Your task to perform on an android device: turn off improve location accuracy Image 0: 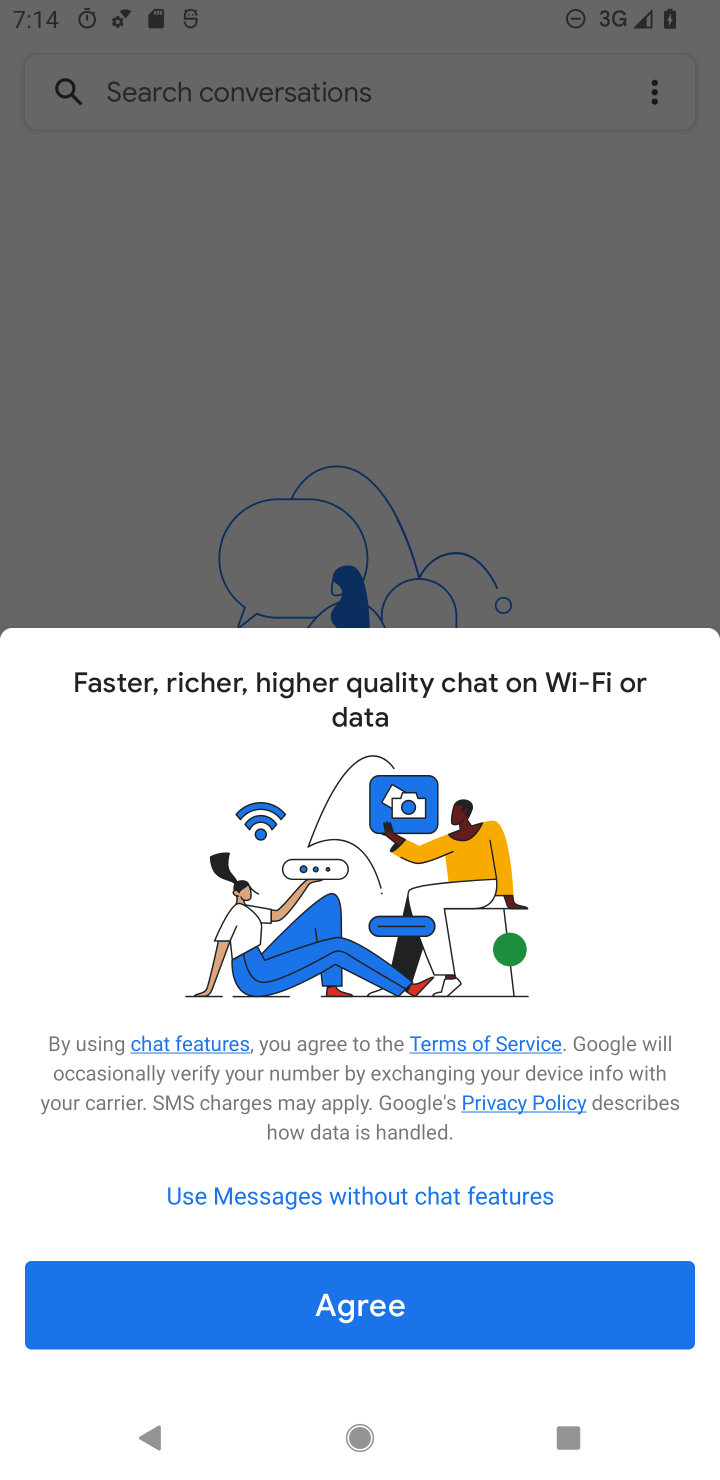
Step 0: drag from (342, 1012) to (419, 351)
Your task to perform on an android device: turn off improve location accuracy Image 1: 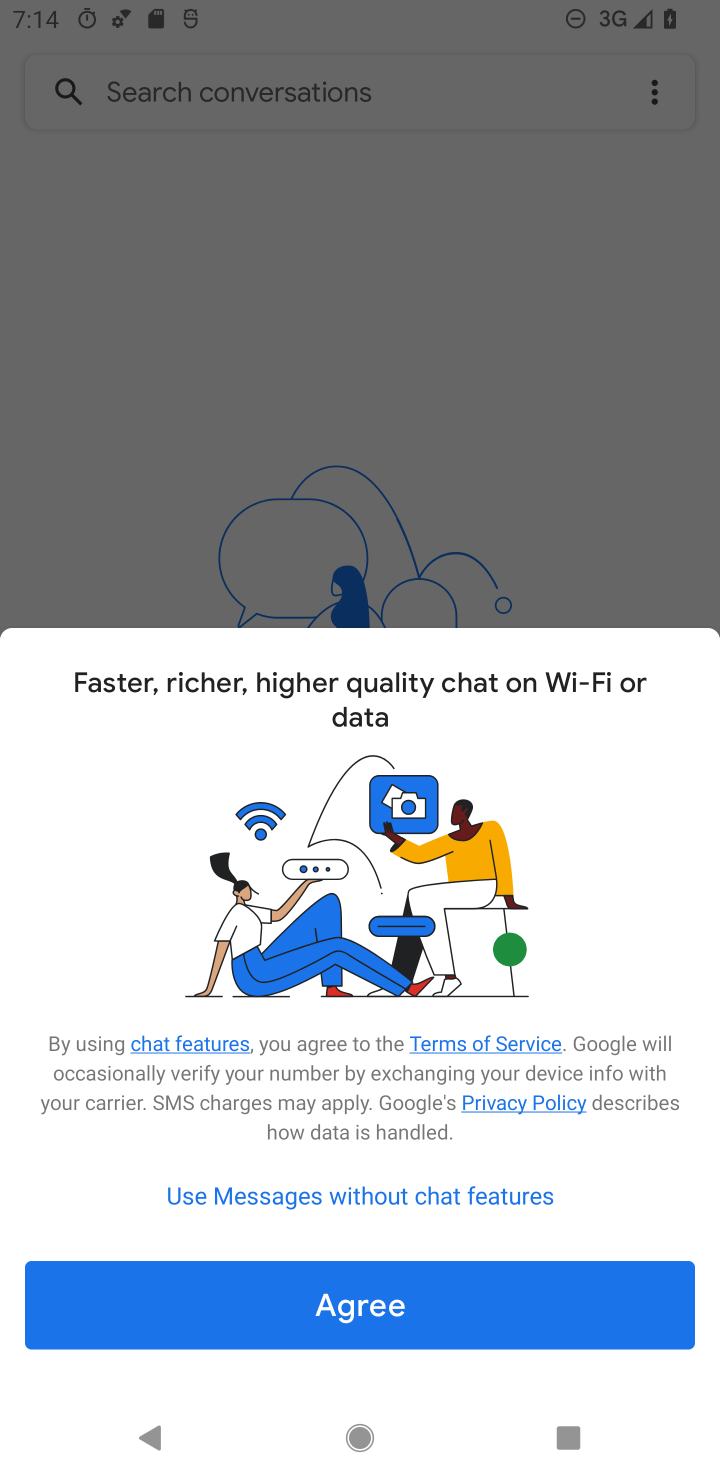
Step 1: drag from (278, 778) to (310, 417)
Your task to perform on an android device: turn off improve location accuracy Image 2: 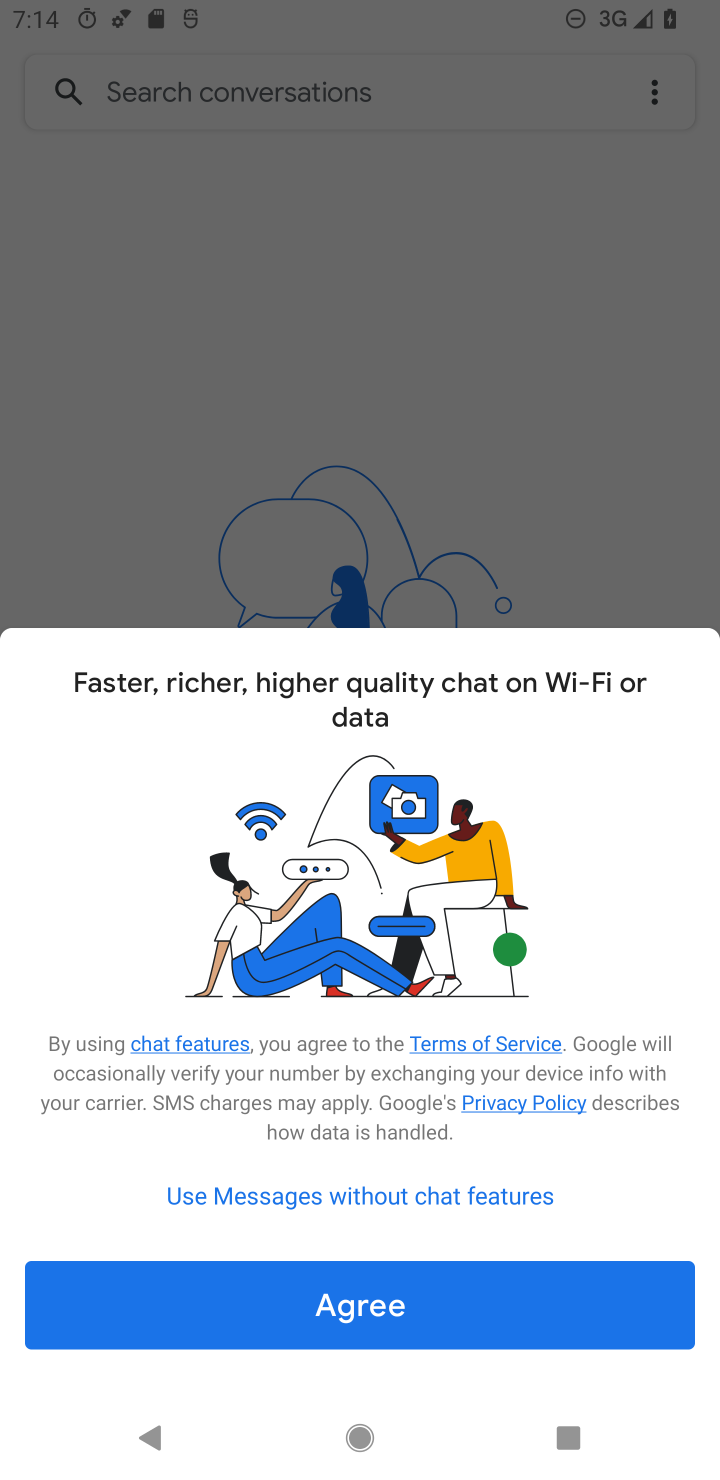
Step 2: press home button
Your task to perform on an android device: turn off improve location accuracy Image 3: 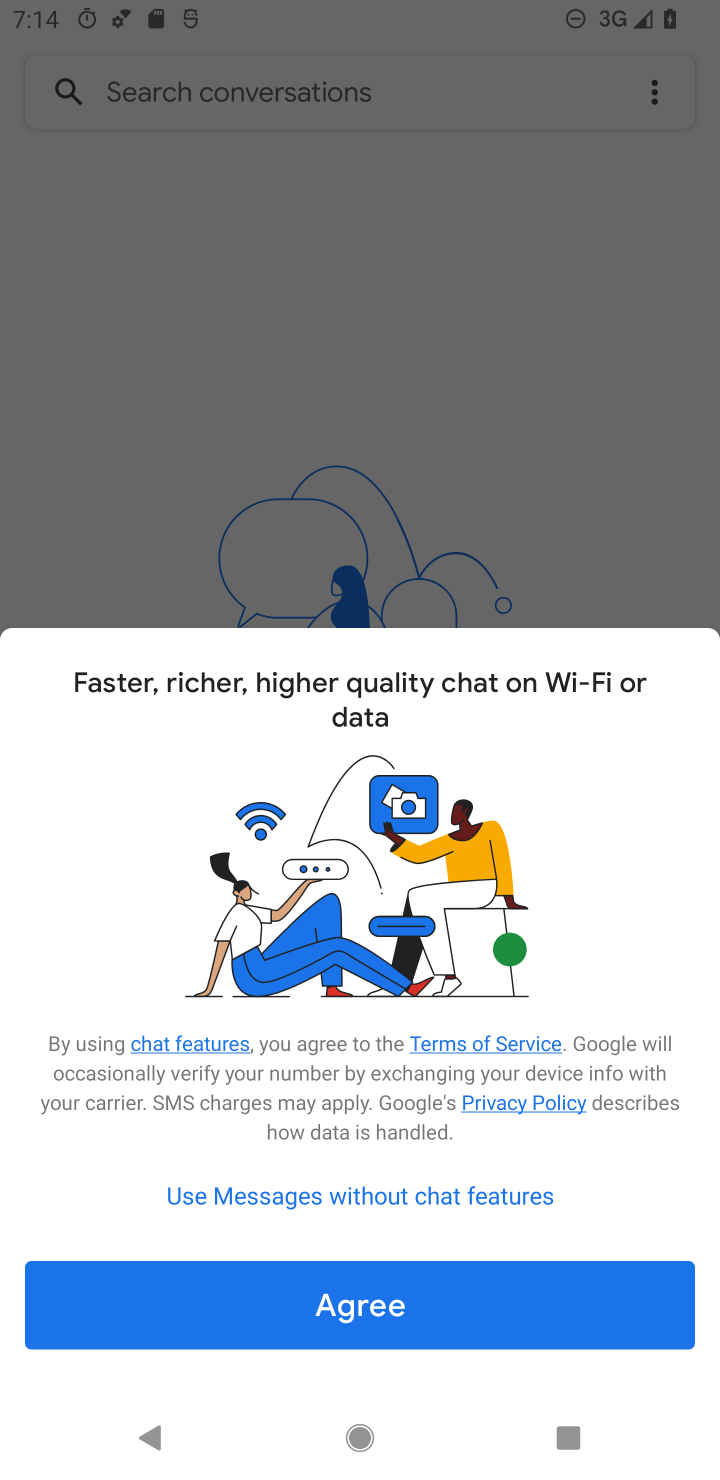
Step 3: drag from (575, 895) to (582, 52)
Your task to perform on an android device: turn off improve location accuracy Image 4: 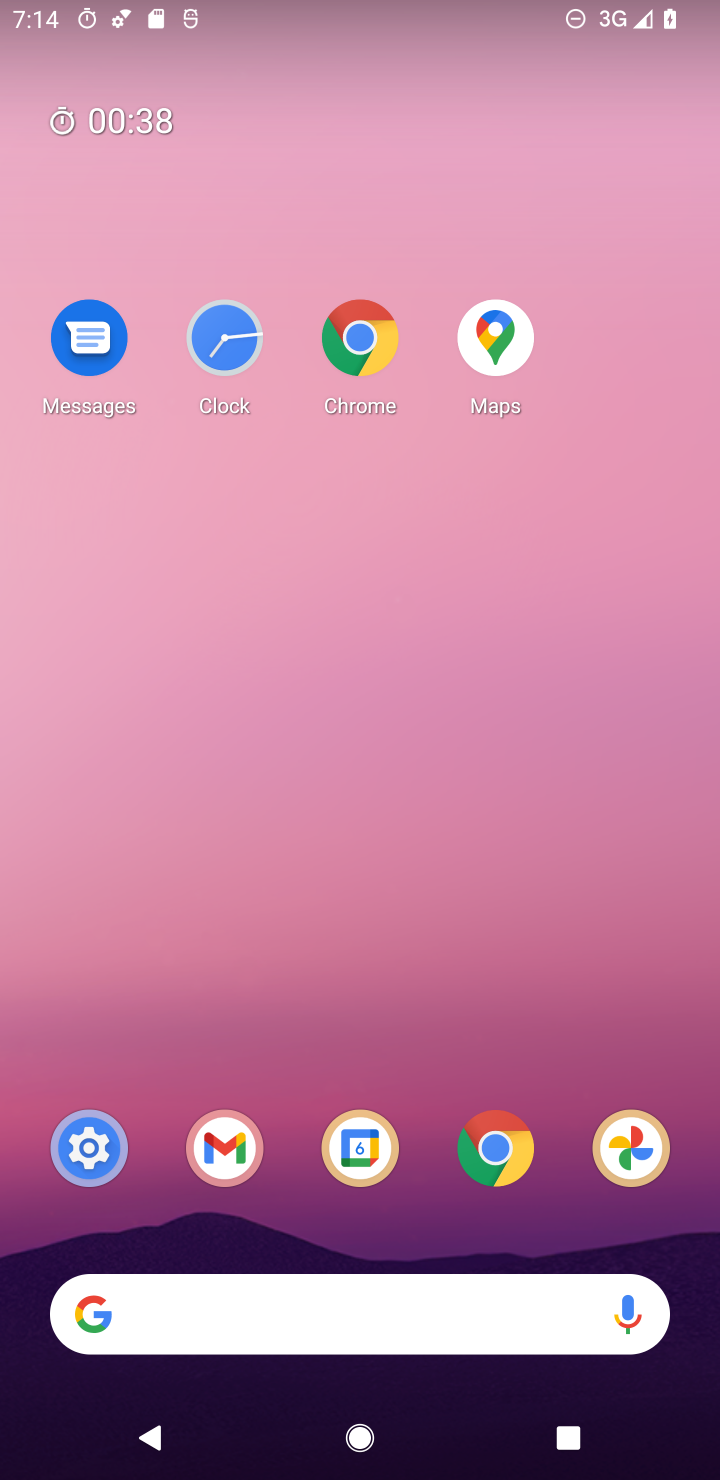
Step 4: drag from (343, 1104) to (504, 344)
Your task to perform on an android device: turn off improve location accuracy Image 5: 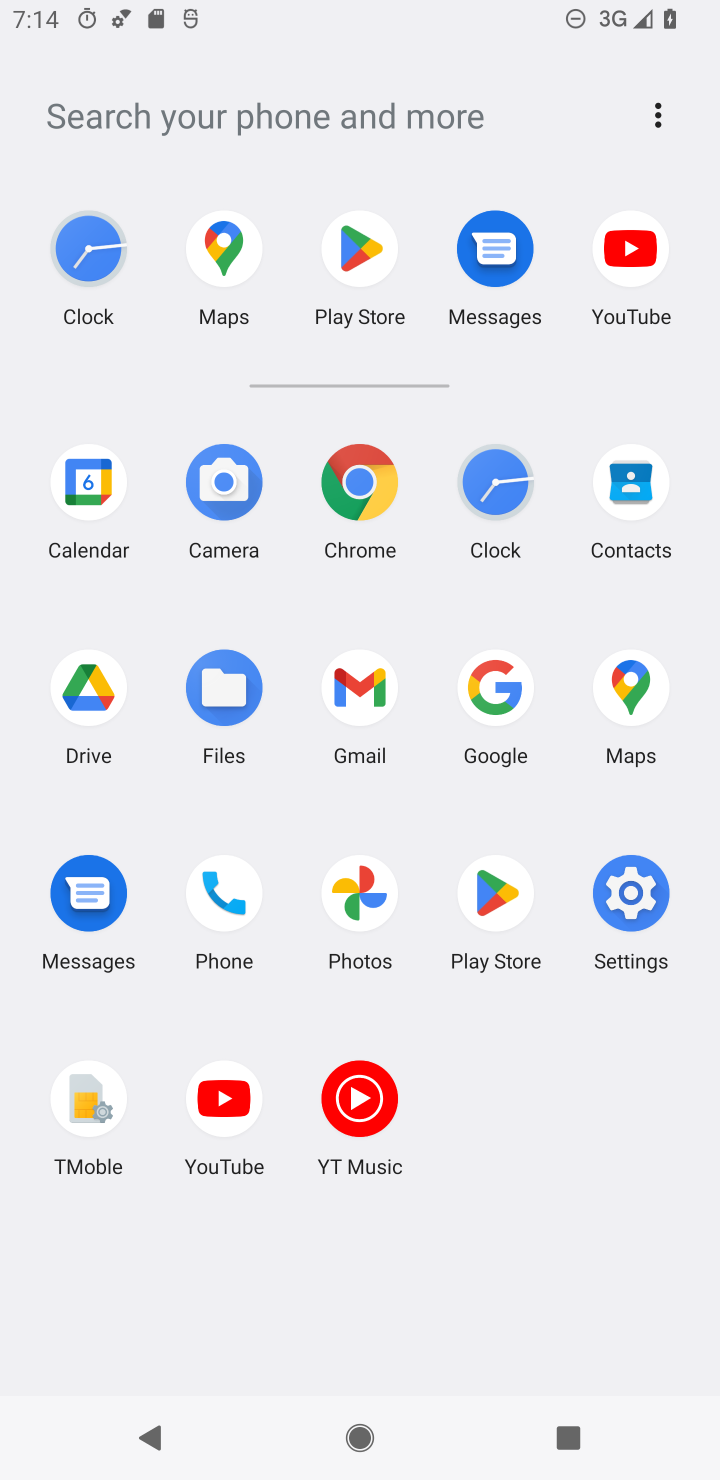
Step 5: click (624, 895)
Your task to perform on an android device: turn off improve location accuracy Image 6: 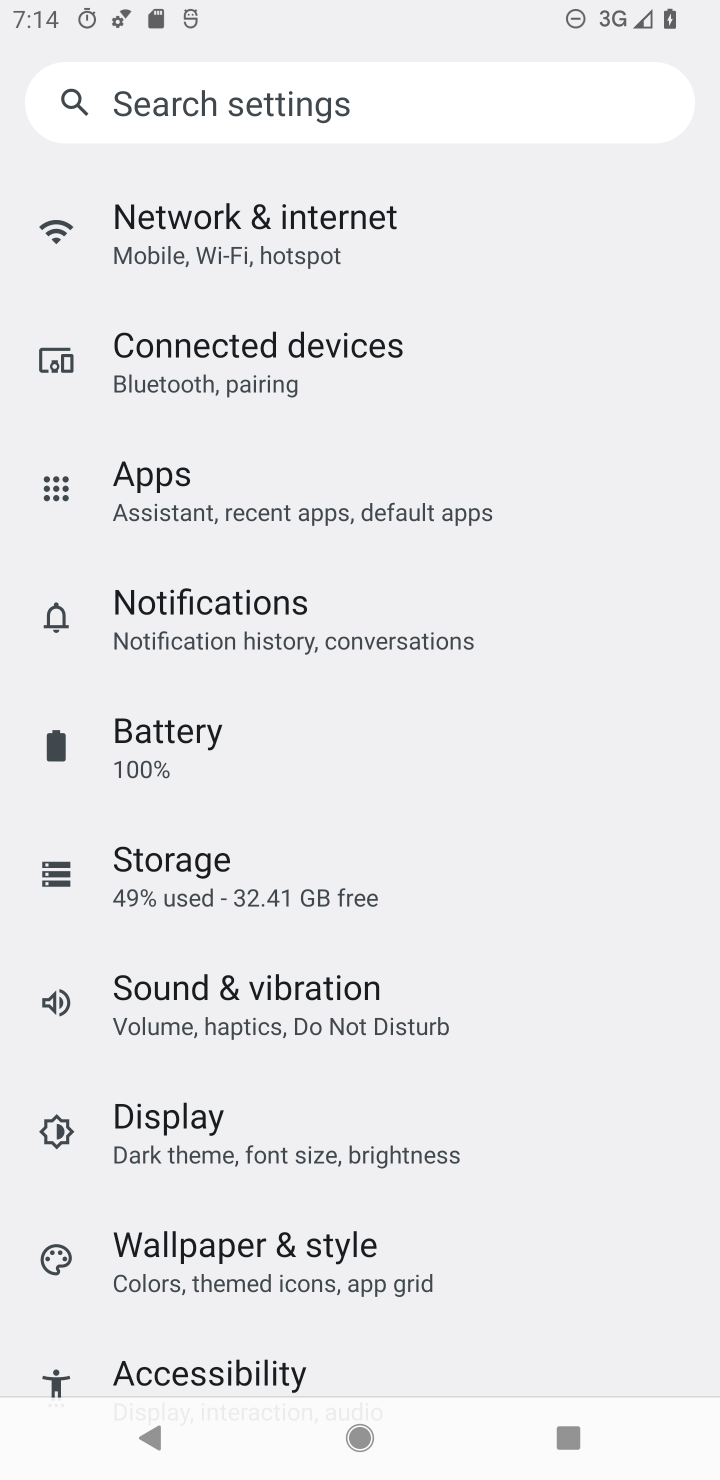
Step 6: drag from (321, 1236) to (713, 353)
Your task to perform on an android device: turn off improve location accuracy Image 7: 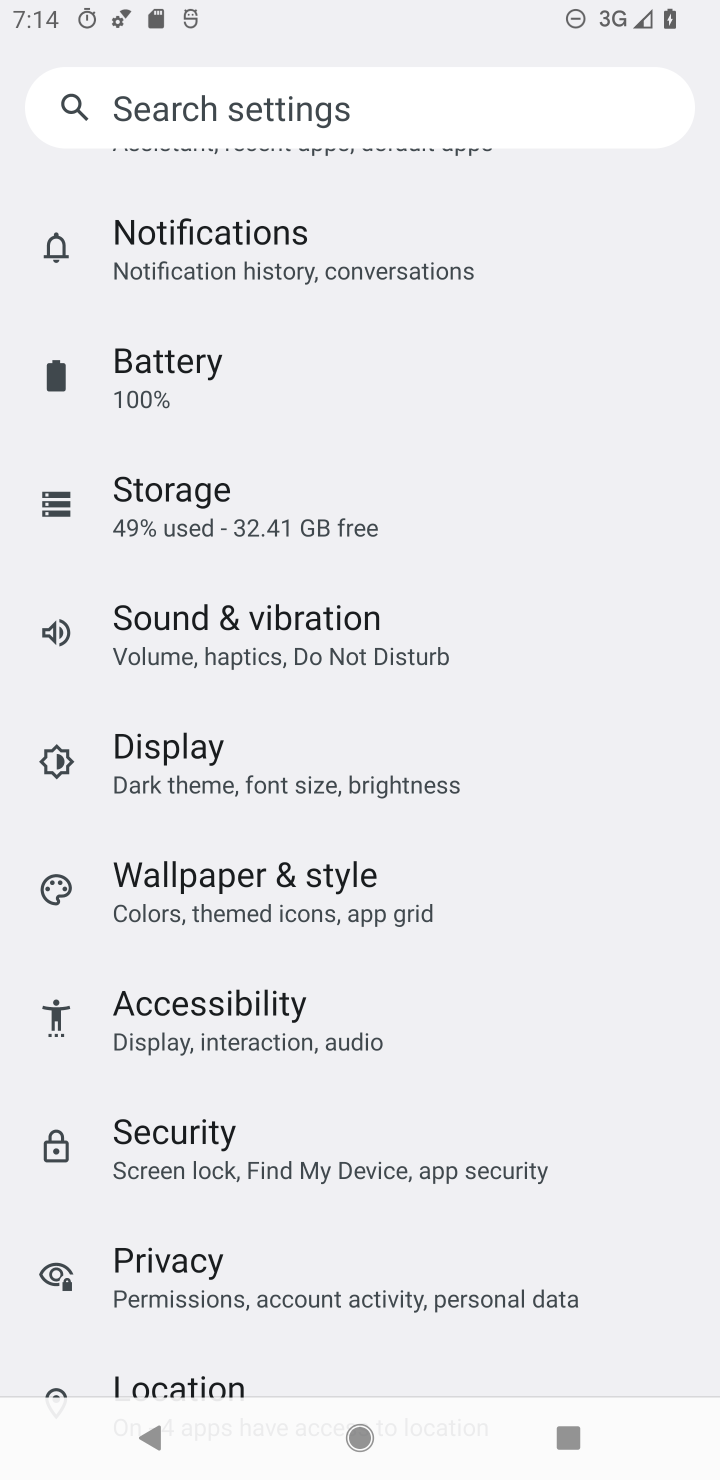
Step 7: click (204, 1369)
Your task to perform on an android device: turn off improve location accuracy Image 8: 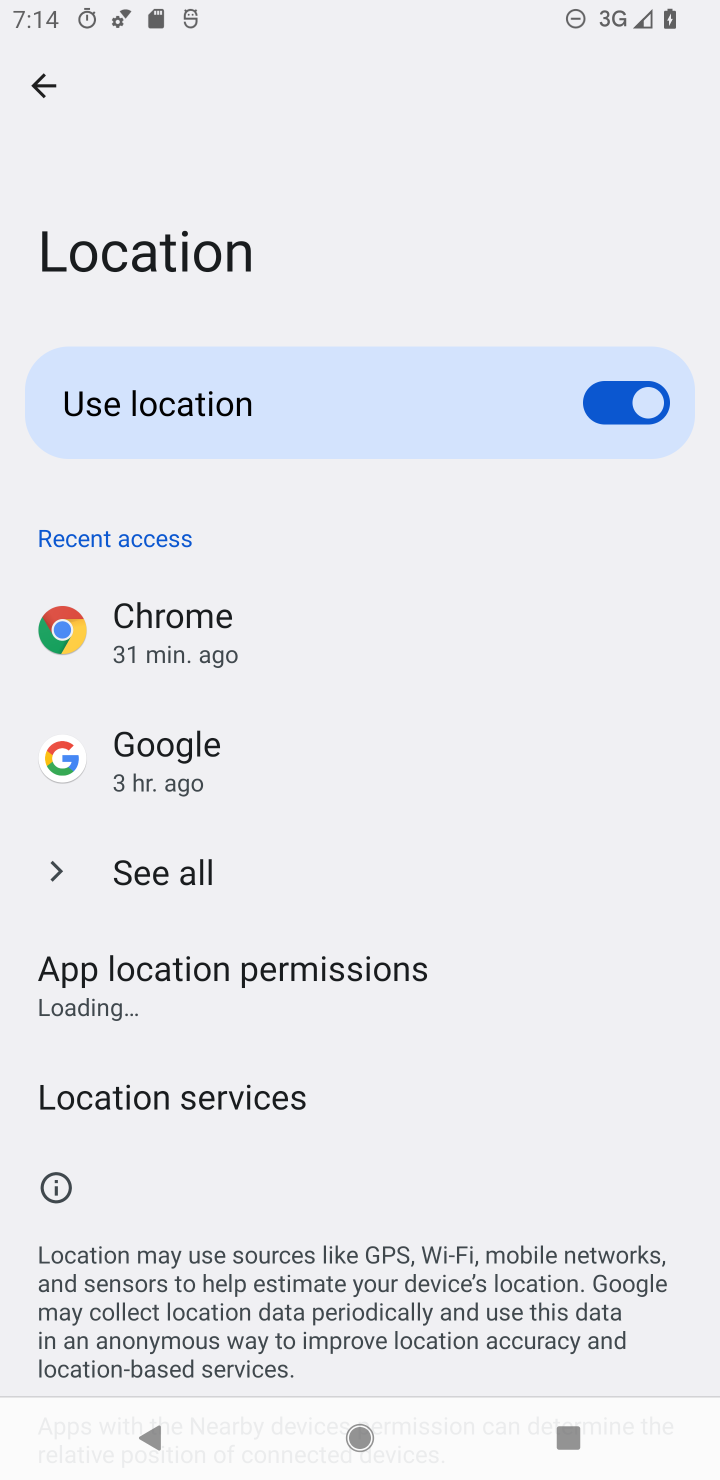
Step 8: drag from (256, 1264) to (427, 351)
Your task to perform on an android device: turn off improve location accuracy Image 9: 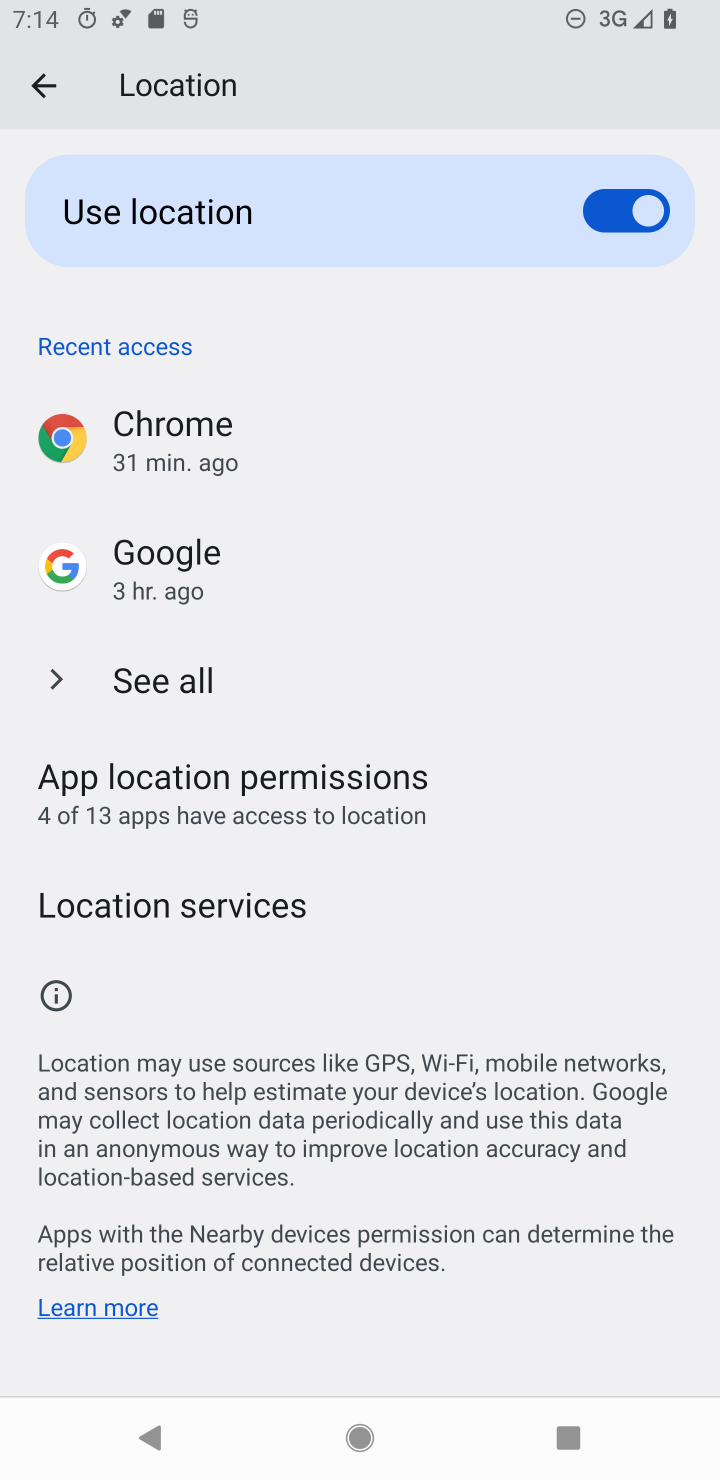
Step 9: drag from (331, 840) to (317, 309)
Your task to perform on an android device: turn off improve location accuracy Image 10: 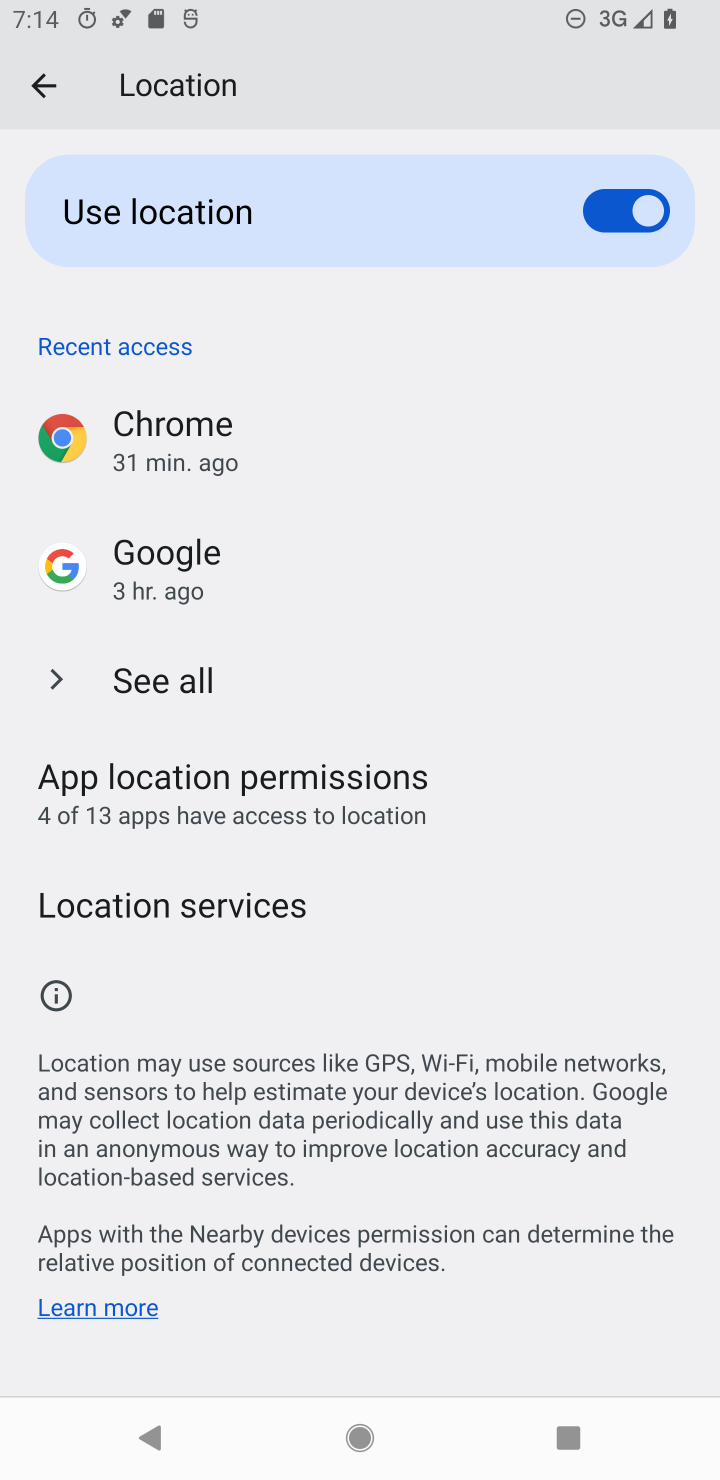
Step 10: click (244, 890)
Your task to perform on an android device: turn off improve location accuracy Image 11: 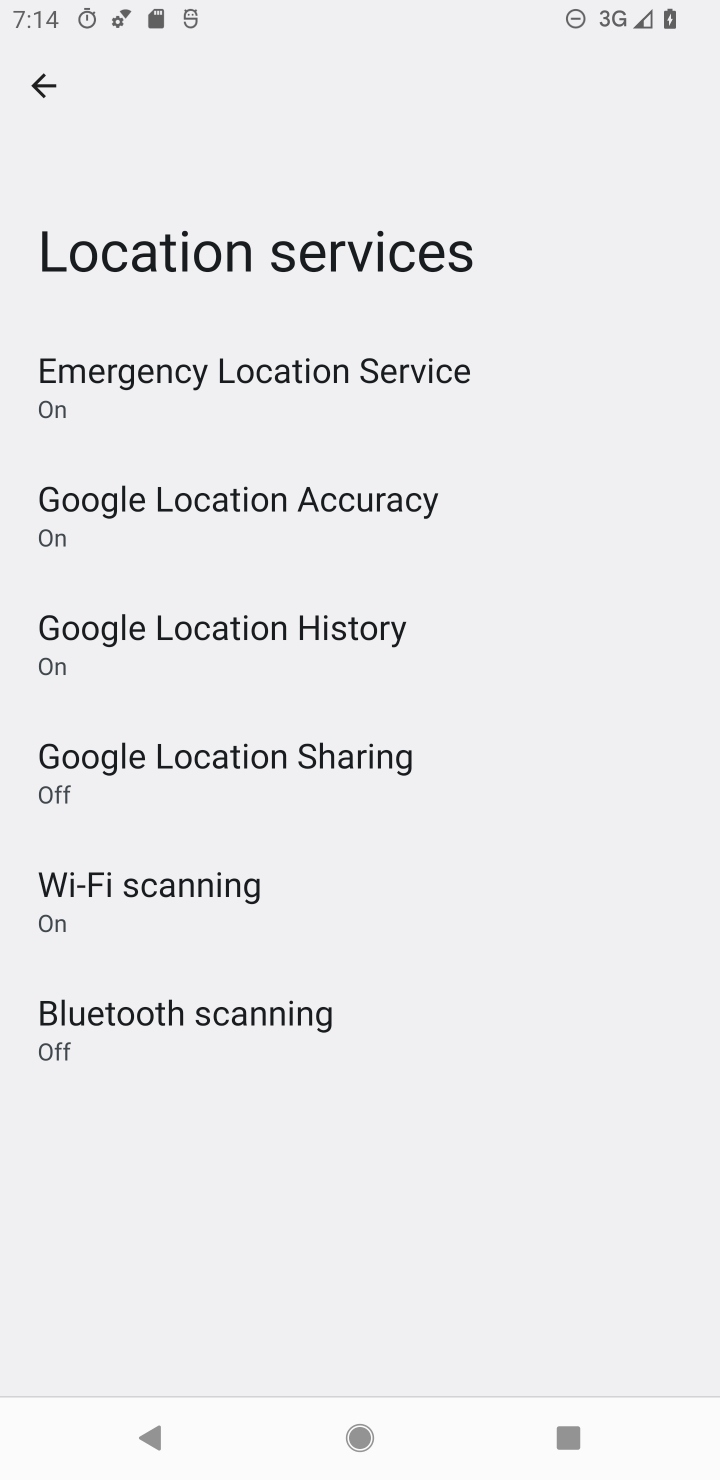
Step 11: click (239, 525)
Your task to perform on an android device: turn off improve location accuracy Image 12: 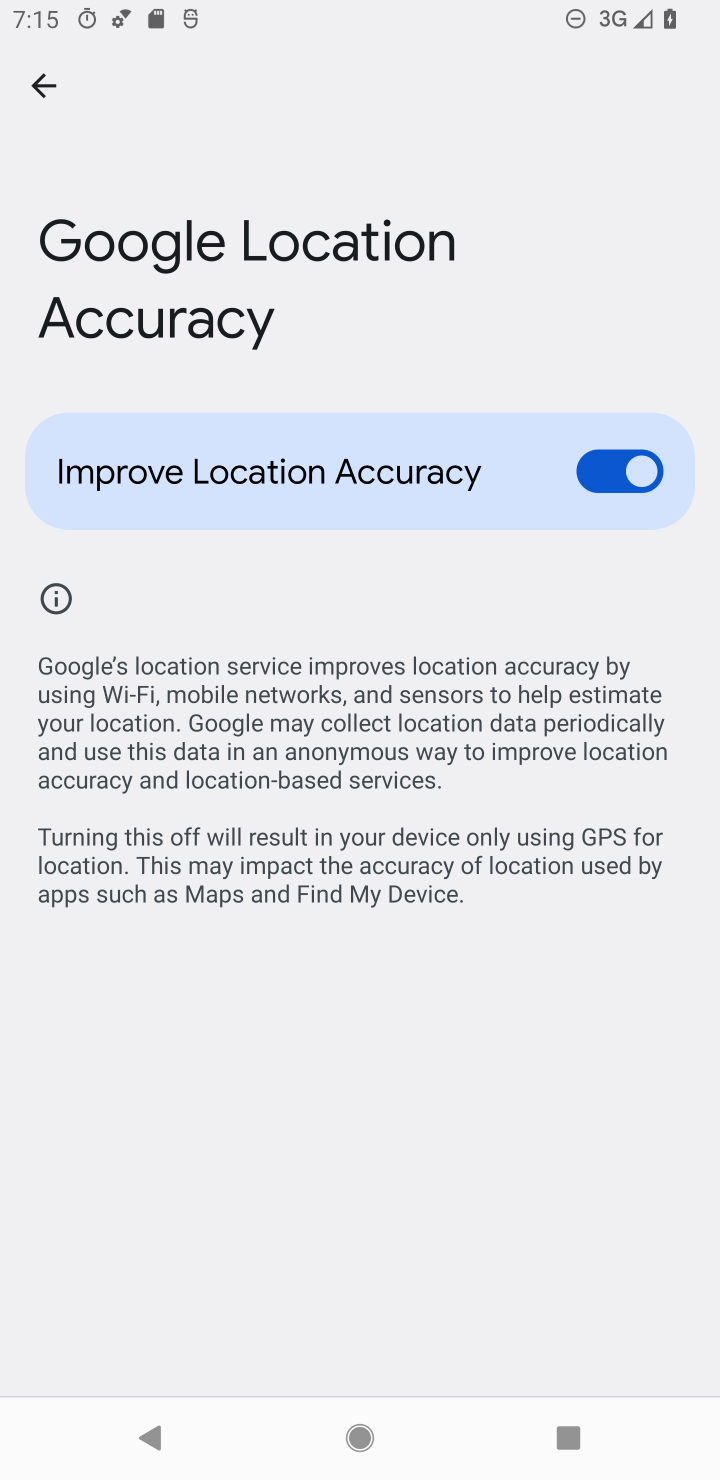
Step 12: click (589, 466)
Your task to perform on an android device: turn off improve location accuracy Image 13: 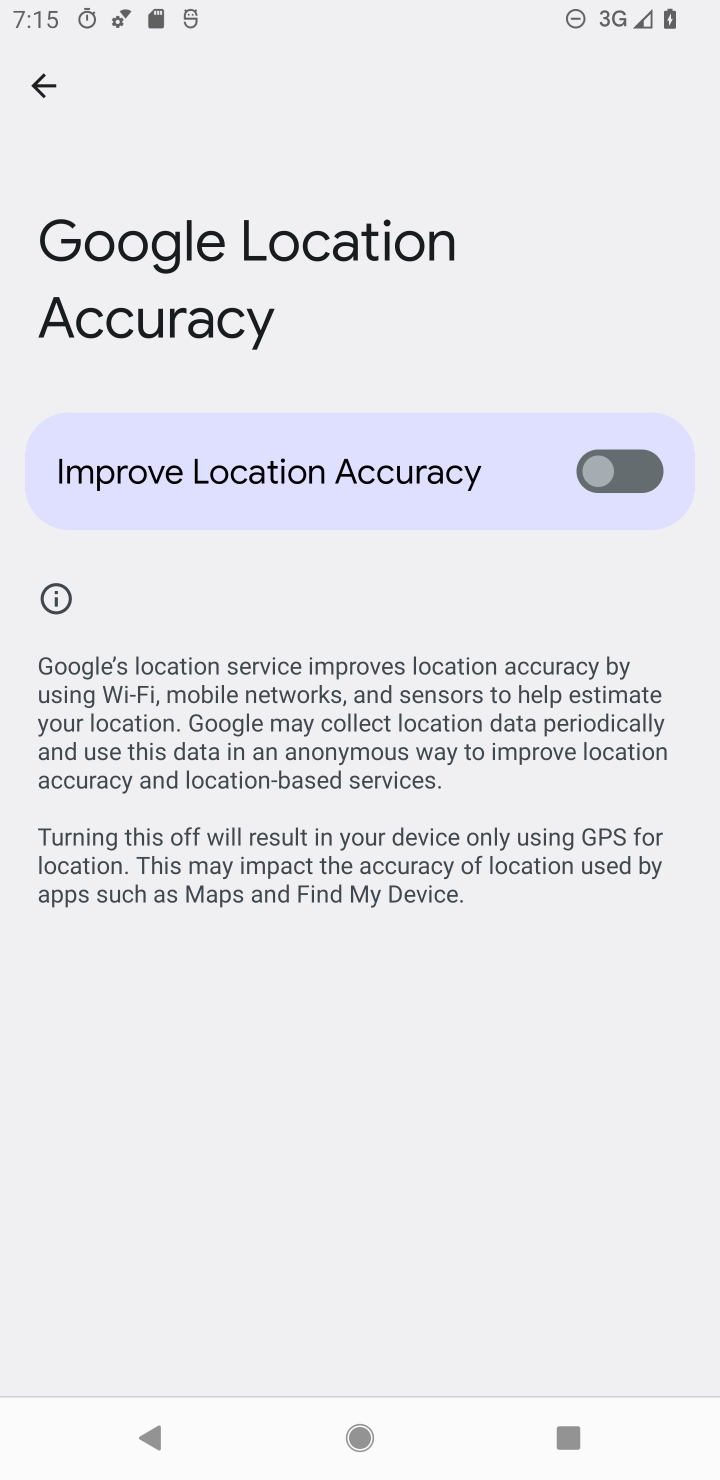
Step 13: task complete